Your task to perform on an android device: change the clock display to digital Image 0: 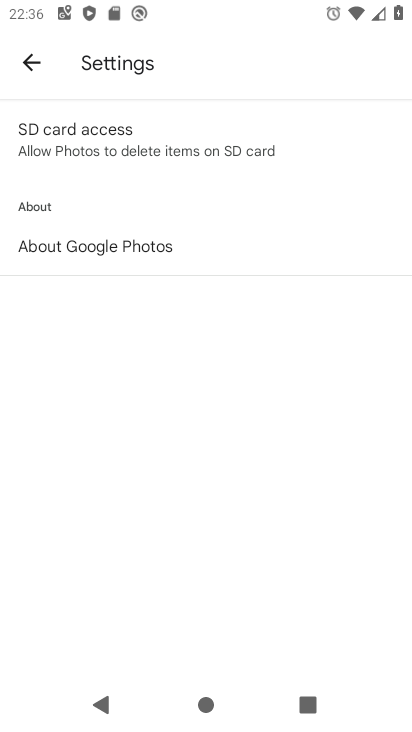
Step 0: press home button
Your task to perform on an android device: change the clock display to digital Image 1: 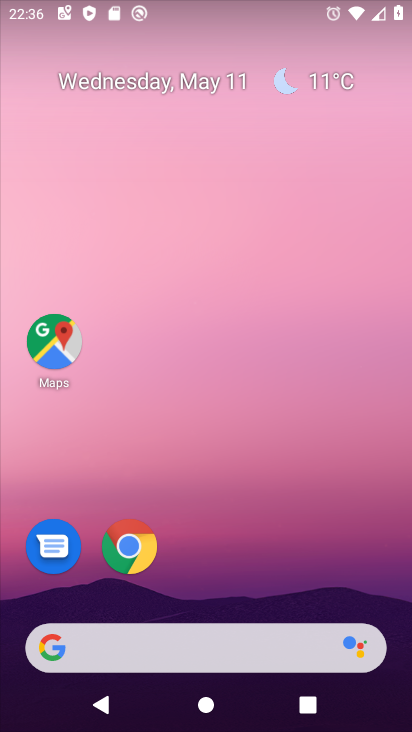
Step 1: drag from (389, 625) to (341, 66)
Your task to perform on an android device: change the clock display to digital Image 2: 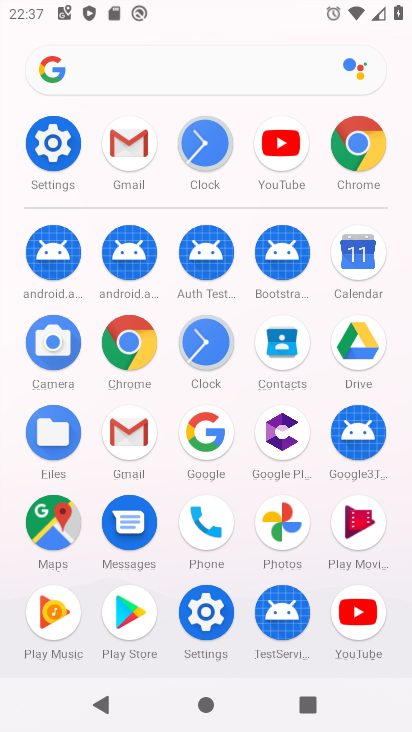
Step 2: click (205, 339)
Your task to perform on an android device: change the clock display to digital Image 3: 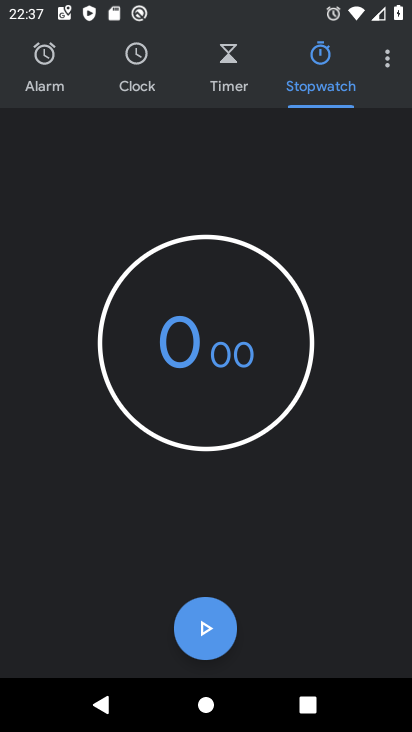
Step 3: click (387, 62)
Your task to perform on an android device: change the clock display to digital Image 4: 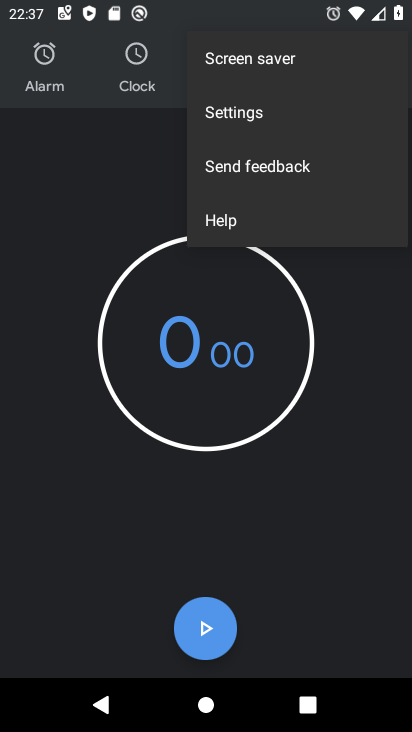
Step 4: click (244, 106)
Your task to perform on an android device: change the clock display to digital Image 5: 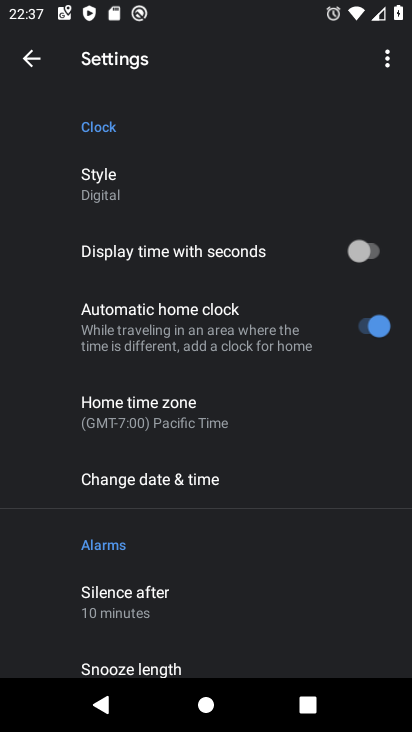
Step 5: task complete